Your task to perform on an android device: uninstall "Truecaller" Image 0: 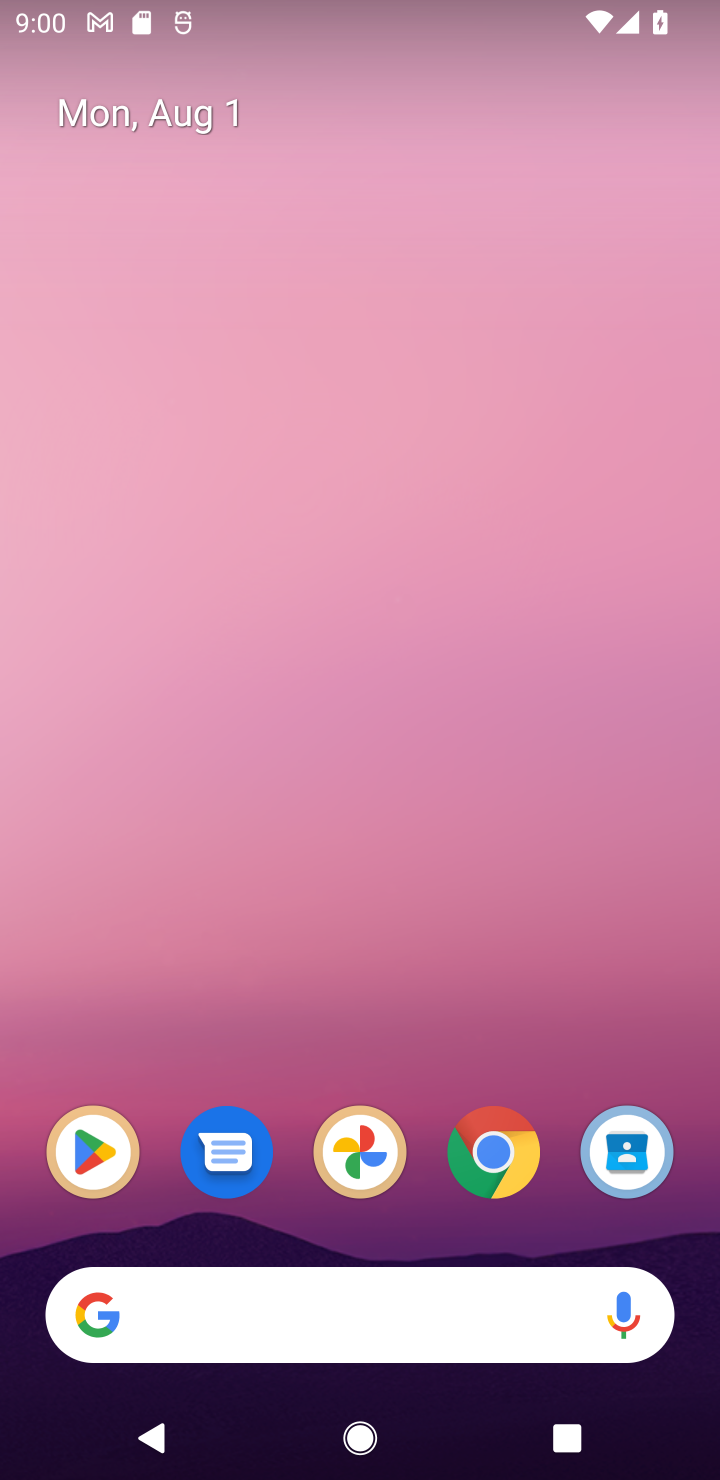
Step 0: drag from (319, 1241) to (167, 17)
Your task to perform on an android device: uninstall "Truecaller" Image 1: 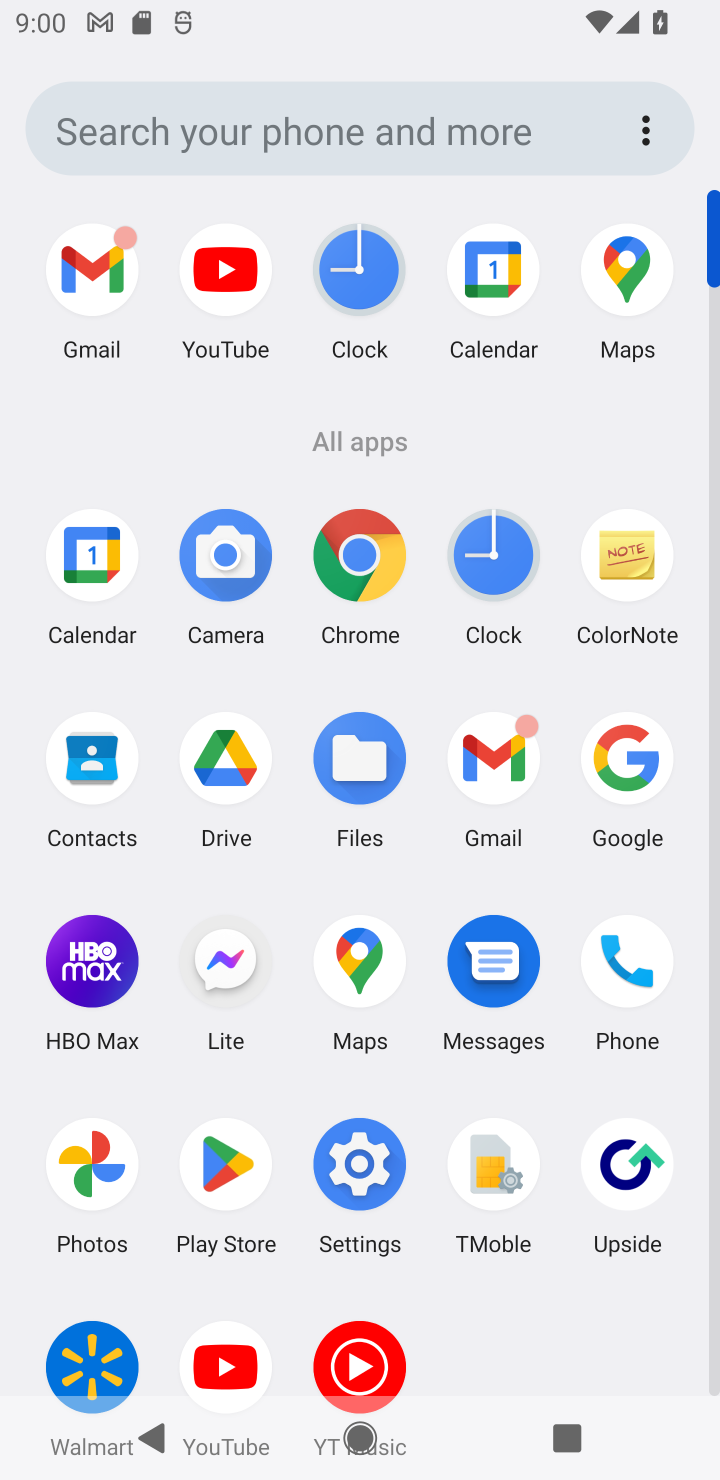
Step 1: click (203, 1195)
Your task to perform on an android device: uninstall "Truecaller" Image 2: 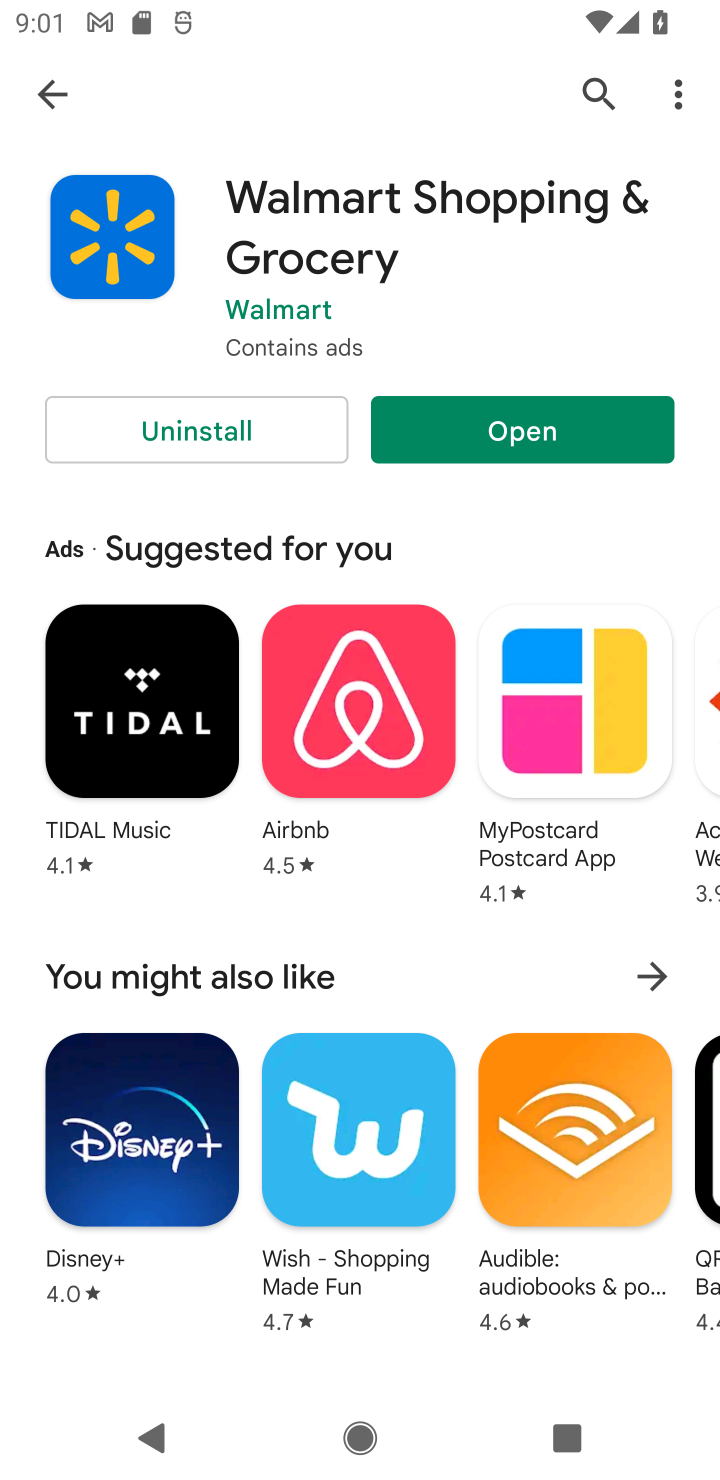
Step 2: click (41, 94)
Your task to perform on an android device: uninstall "Truecaller" Image 3: 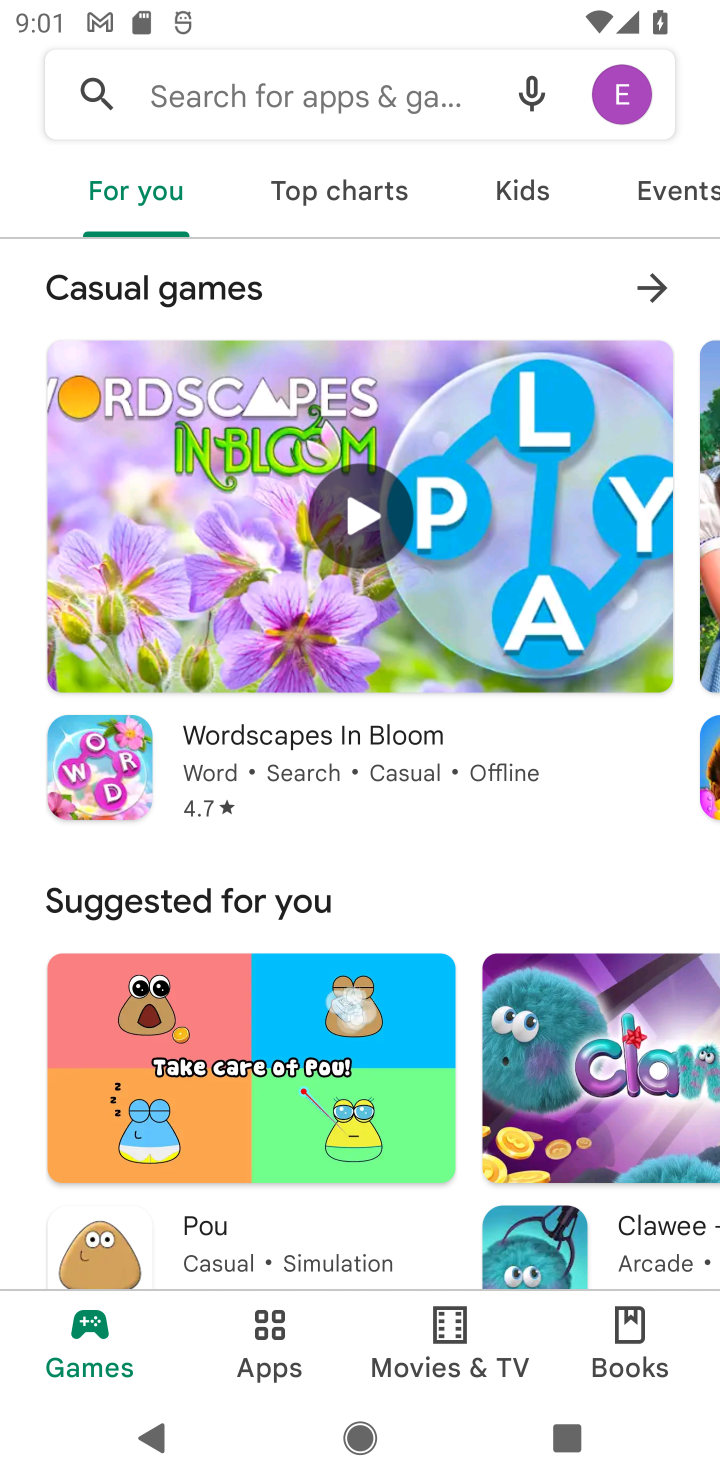
Step 3: click (261, 86)
Your task to perform on an android device: uninstall "Truecaller" Image 4: 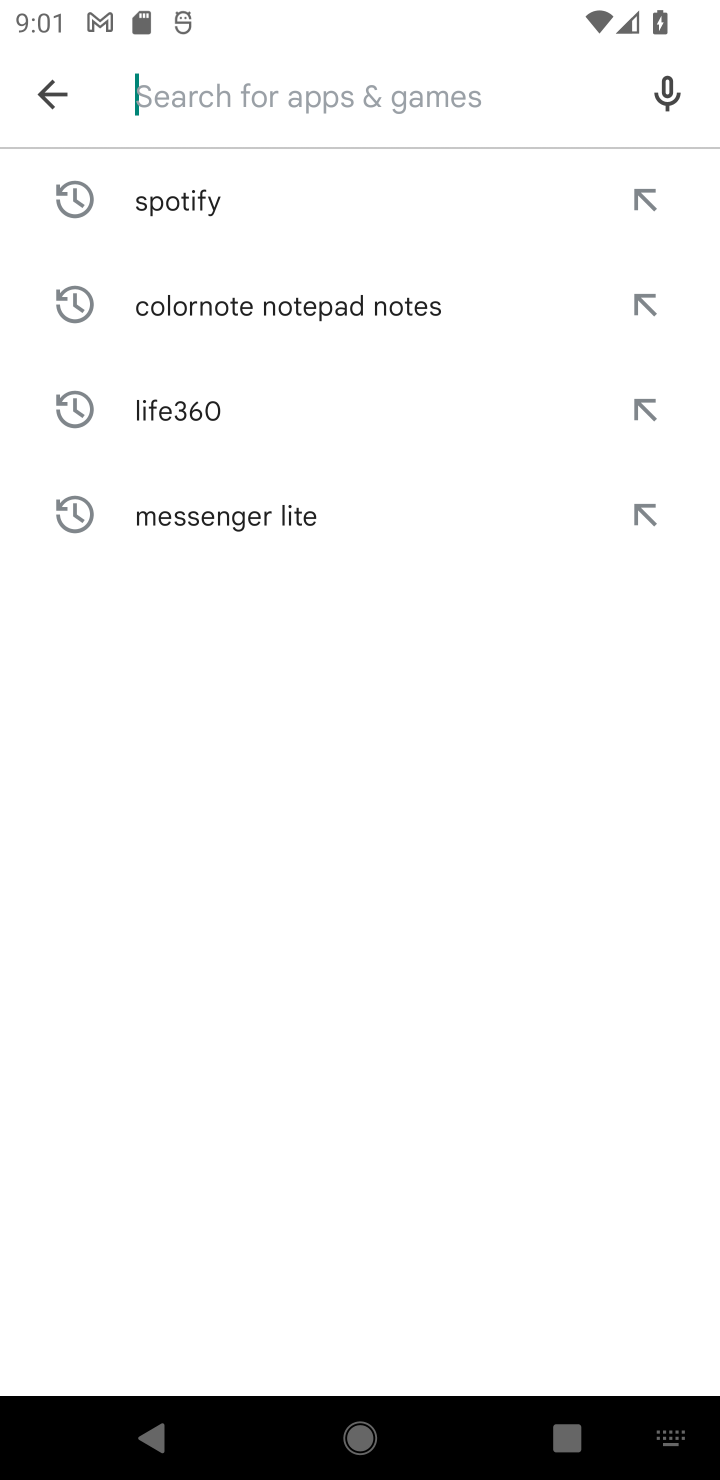
Step 4: type "Truecaller"
Your task to perform on an android device: uninstall "Truecaller" Image 5: 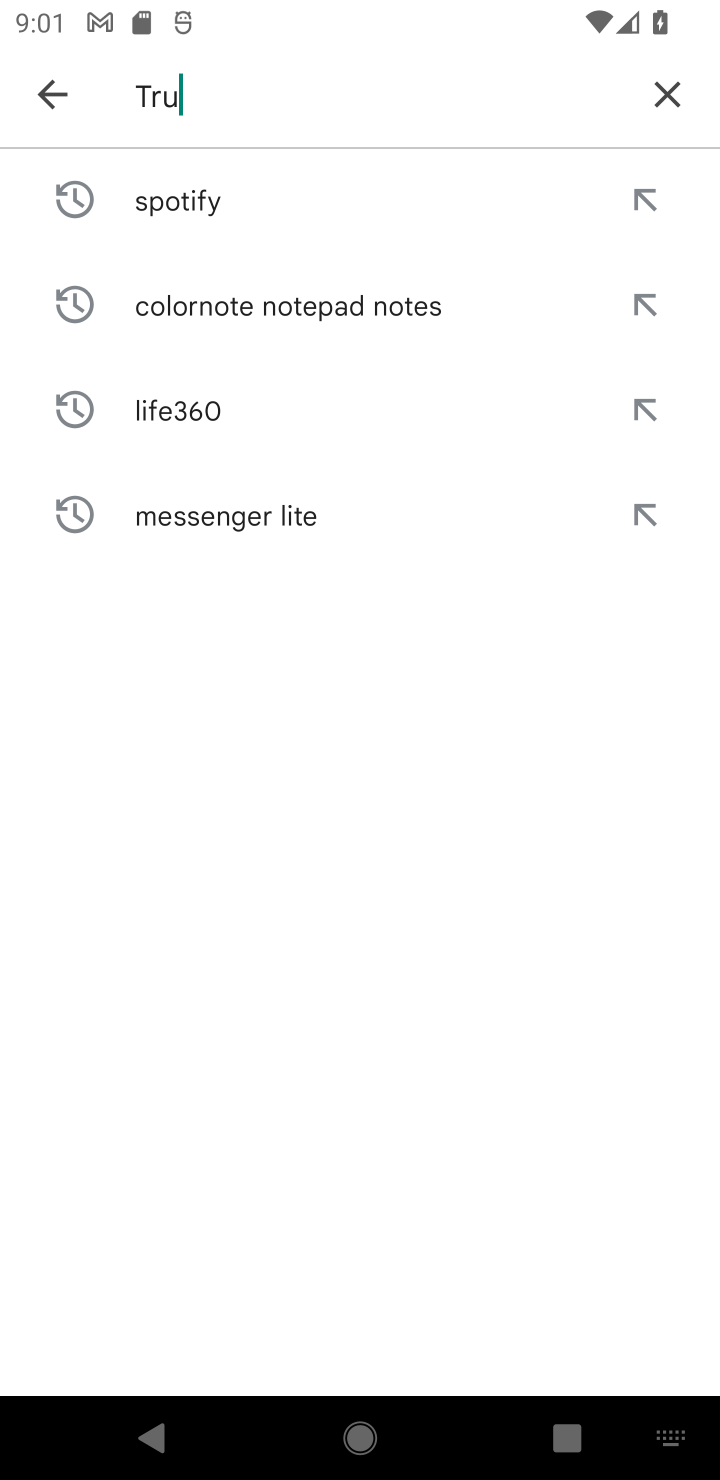
Step 5: type ""
Your task to perform on an android device: uninstall "Truecaller" Image 6: 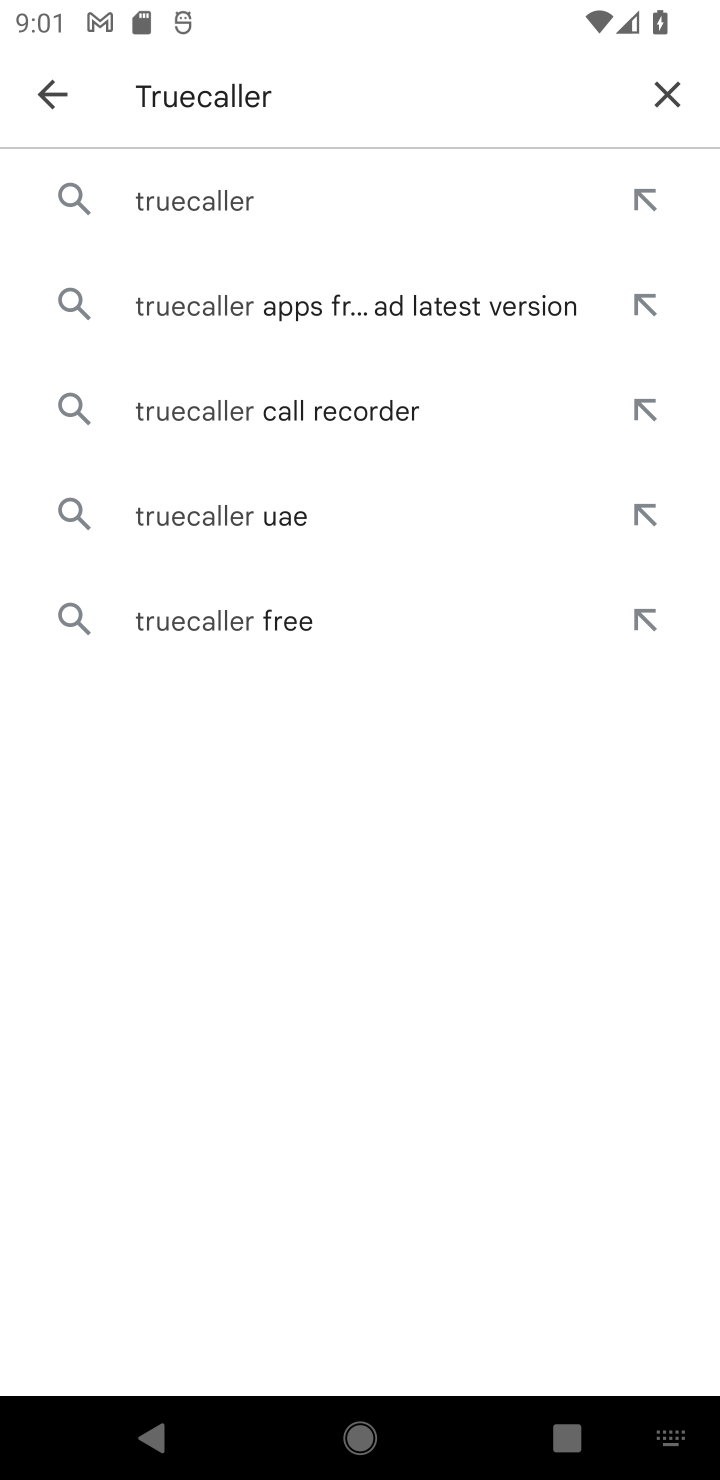
Step 6: click (182, 207)
Your task to perform on an android device: uninstall "Truecaller" Image 7: 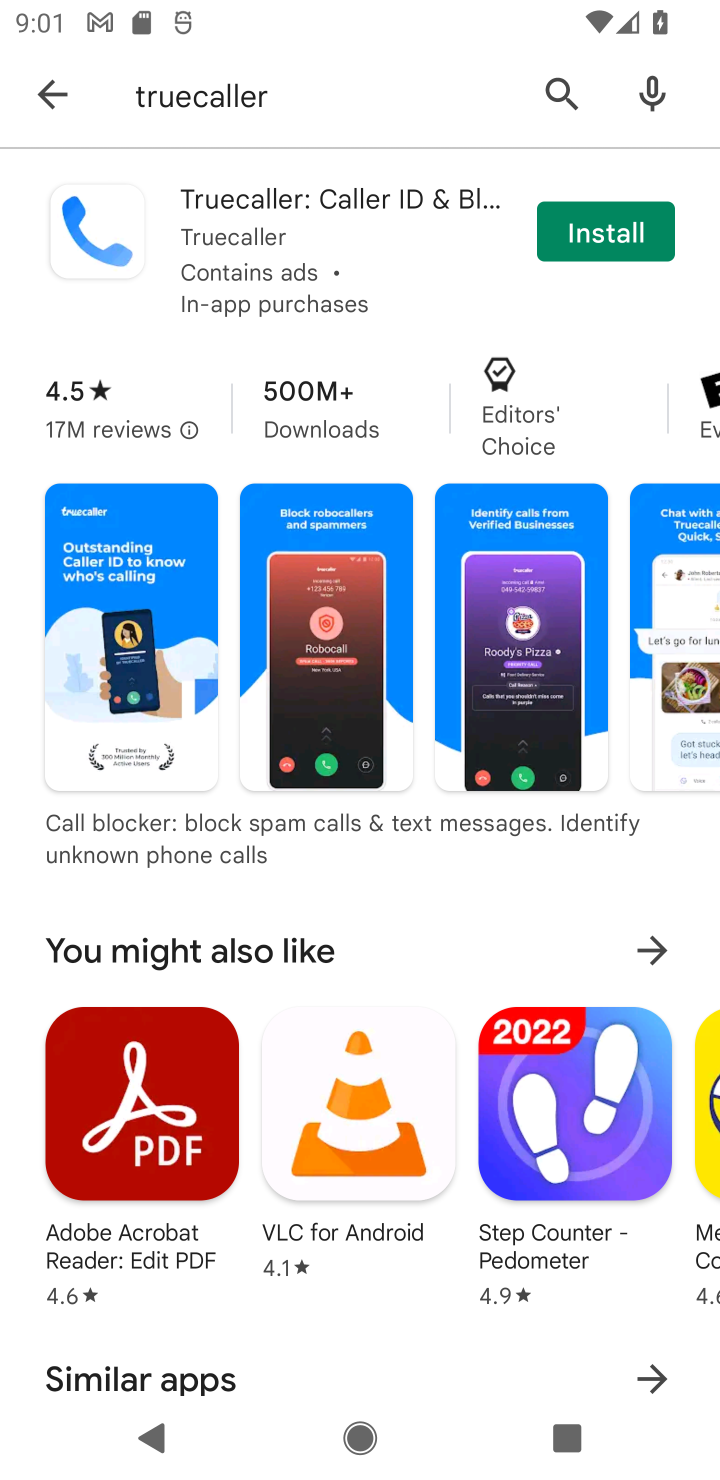
Step 7: click (180, 207)
Your task to perform on an android device: uninstall "Truecaller" Image 8: 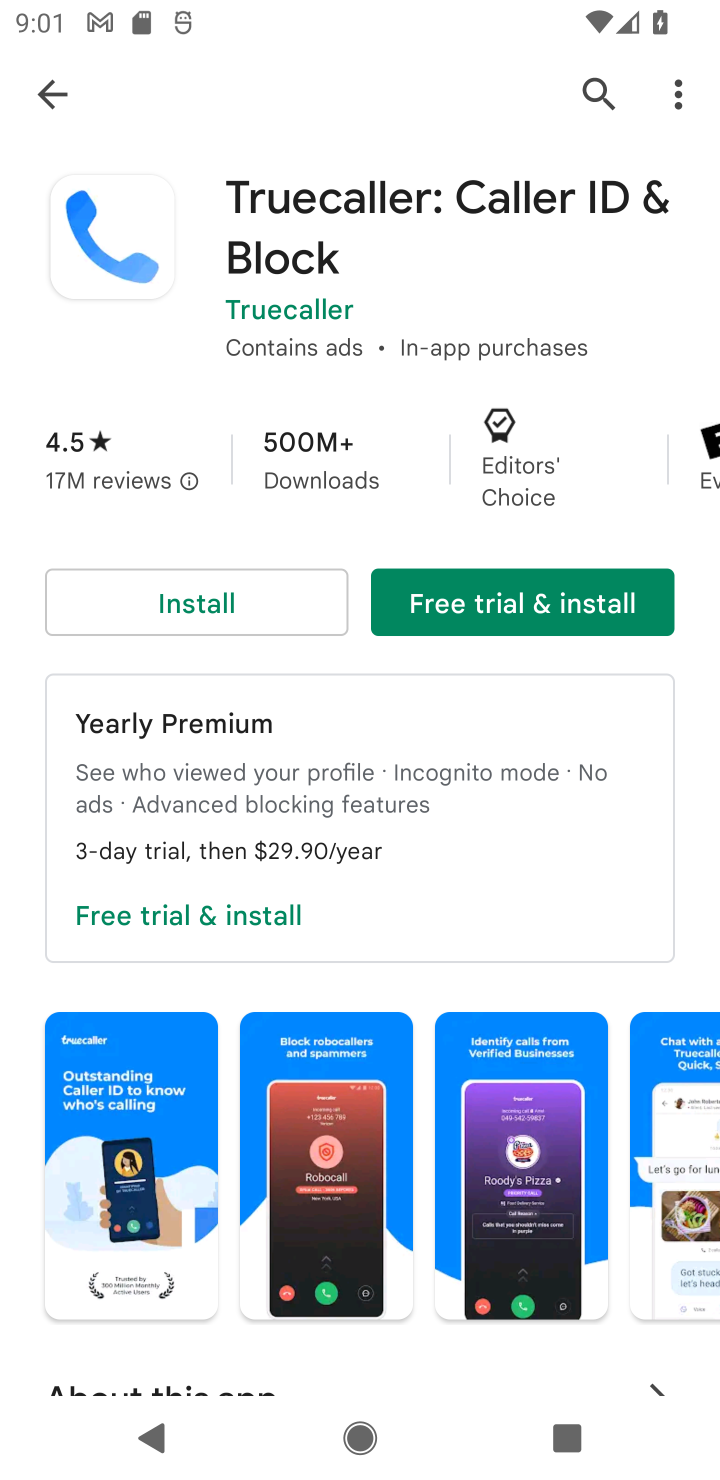
Step 8: task complete